Your task to perform on an android device: turn on airplane mode Image 0: 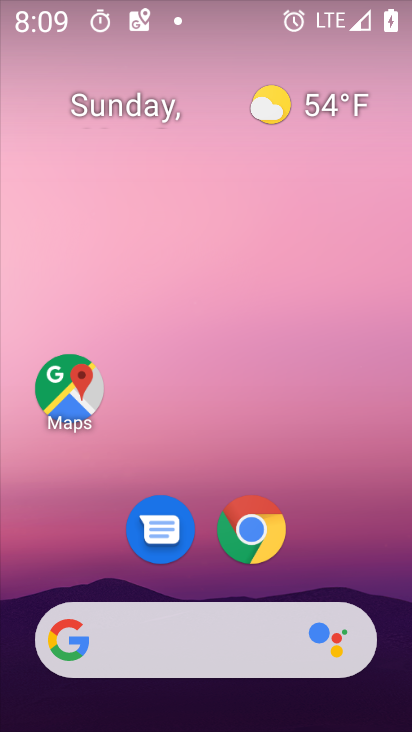
Step 0: drag from (211, 579) to (245, 142)
Your task to perform on an android device: turn on airplane mode Image 1: 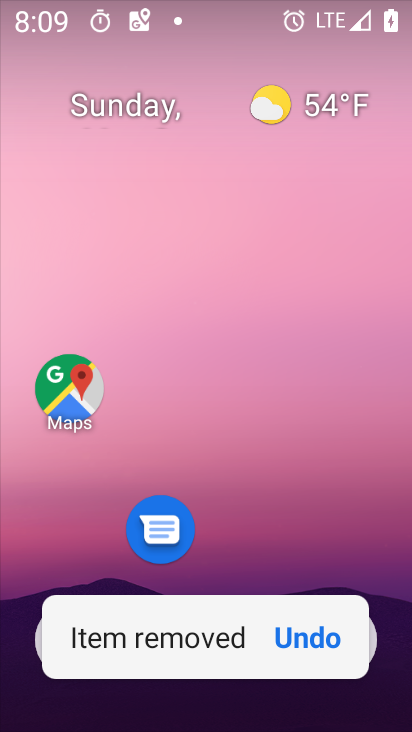
Step 1: drag from (239, 553) to (317, 136)
Your task to perform on an android device: turn on airplane mode Image 2: 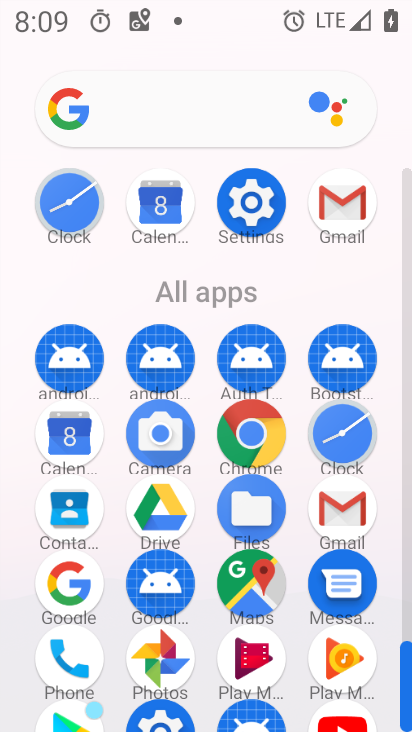
Step 2: click (253, 218)
Your task to perform on an android device: turn on airplane mode Image 3: 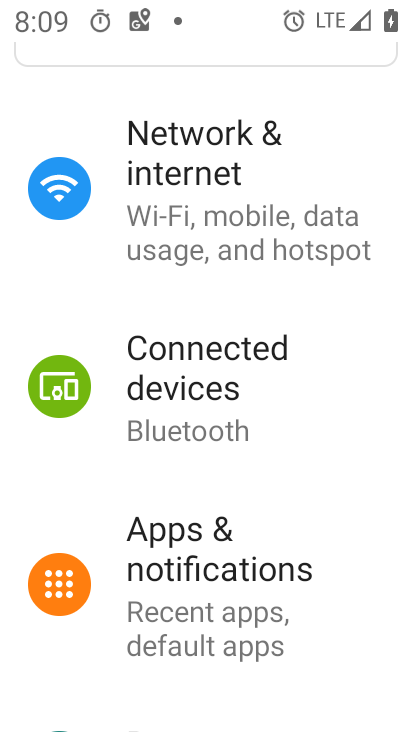
Step 3: click (218, 255)
Your task to perform on an android device: turn on airplane mode Image 4: 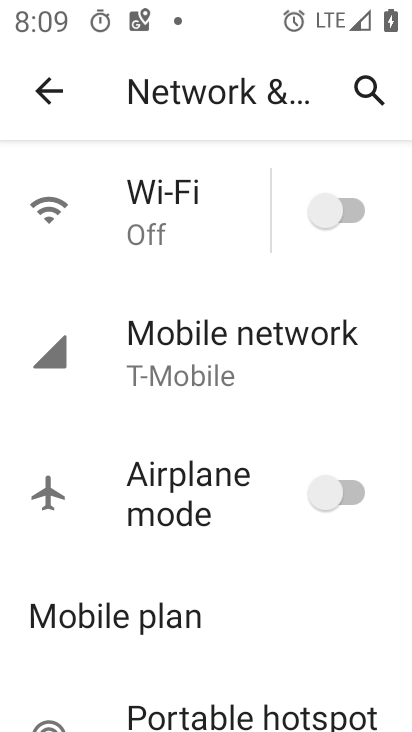
Step 4: click (341, 482)
Your task to perform on an android device: turn on airplane mode Image 5: 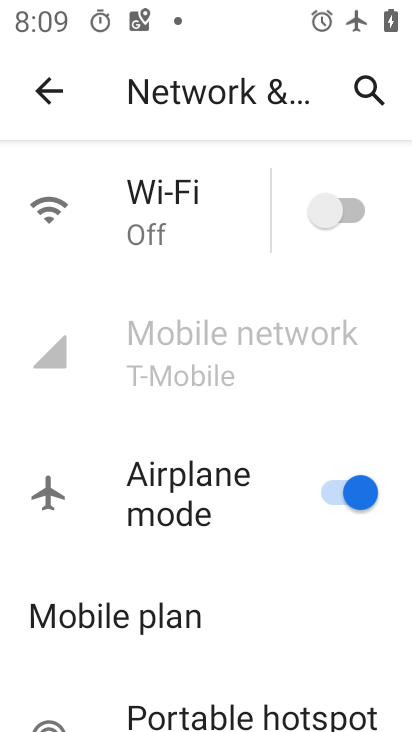
Step 5: task complete